Your task to perform on an android device: Open settings on Google Maps Image 0: 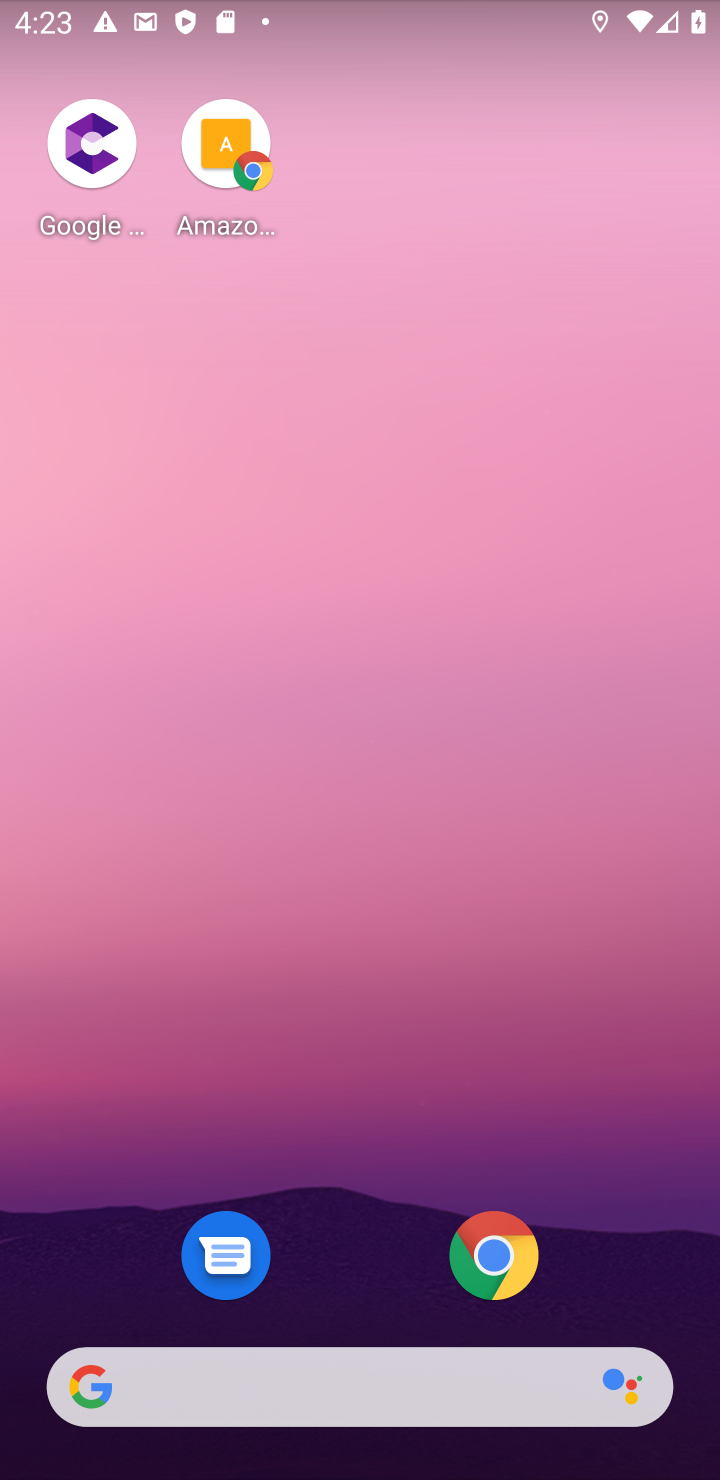
Step 0: drag from (329, 1364) to (454, 102)
Your task to perform on an android device: Open settings on Google Maps Image 1: 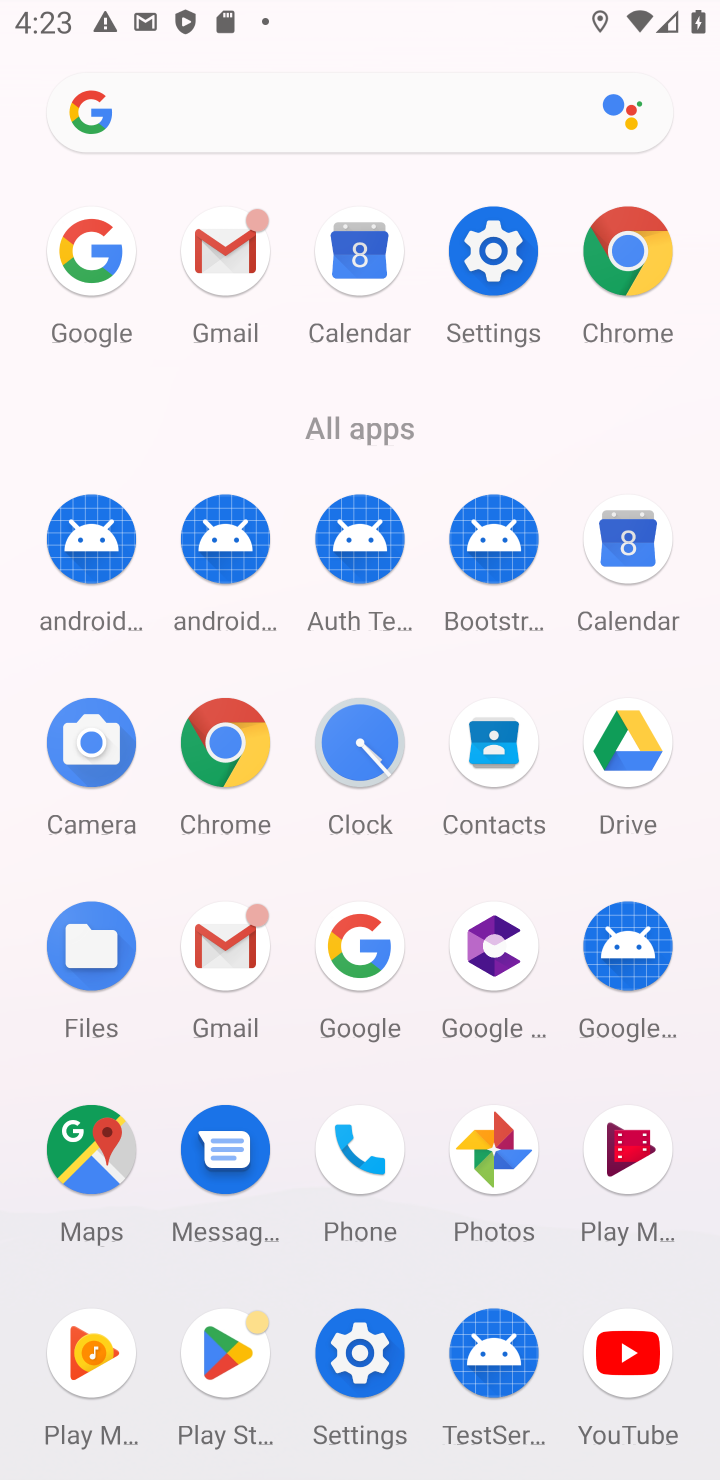
Step 1: click (97, 1151)
Your task to perform on an android device: Open settings on Google Maps Image 2: 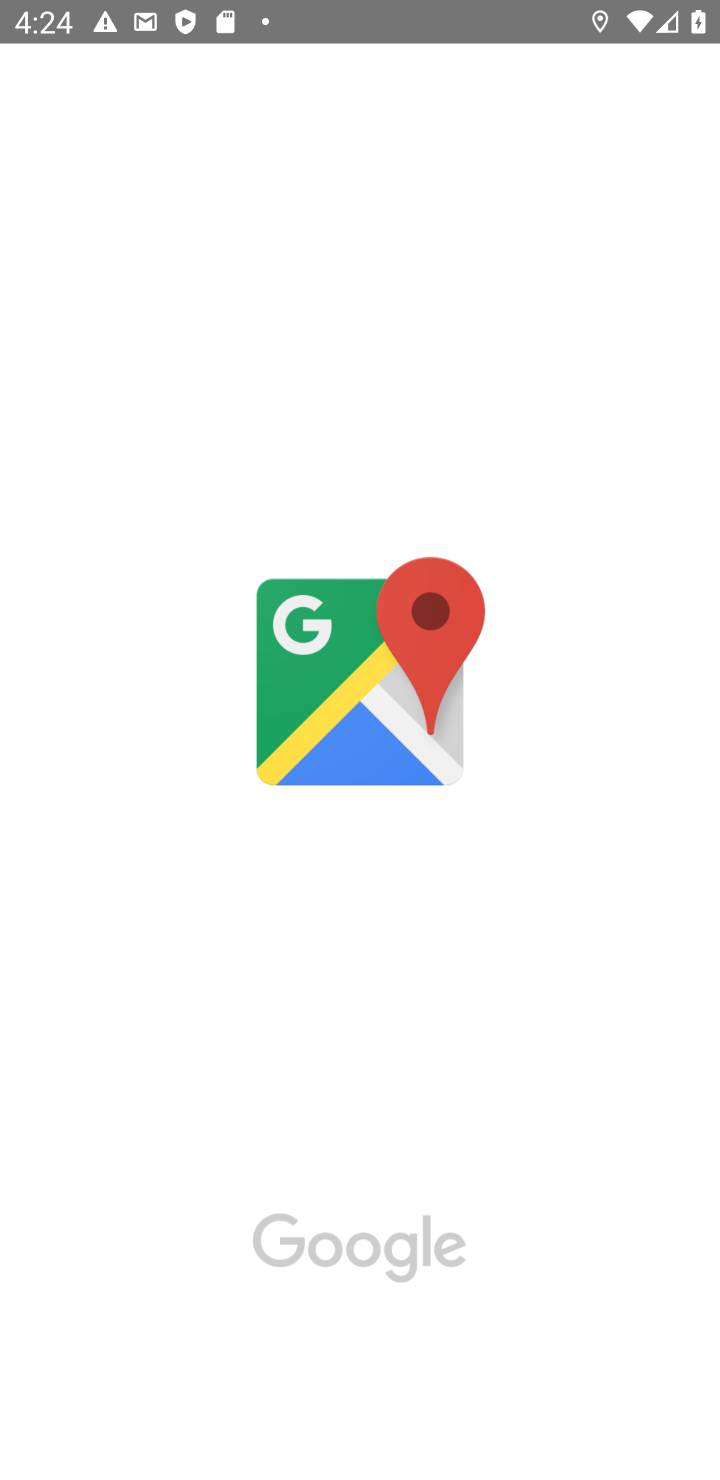
Step 2: click (568, 376)
Your task to perform on an android device: Open settings on Google Maps Image 3: 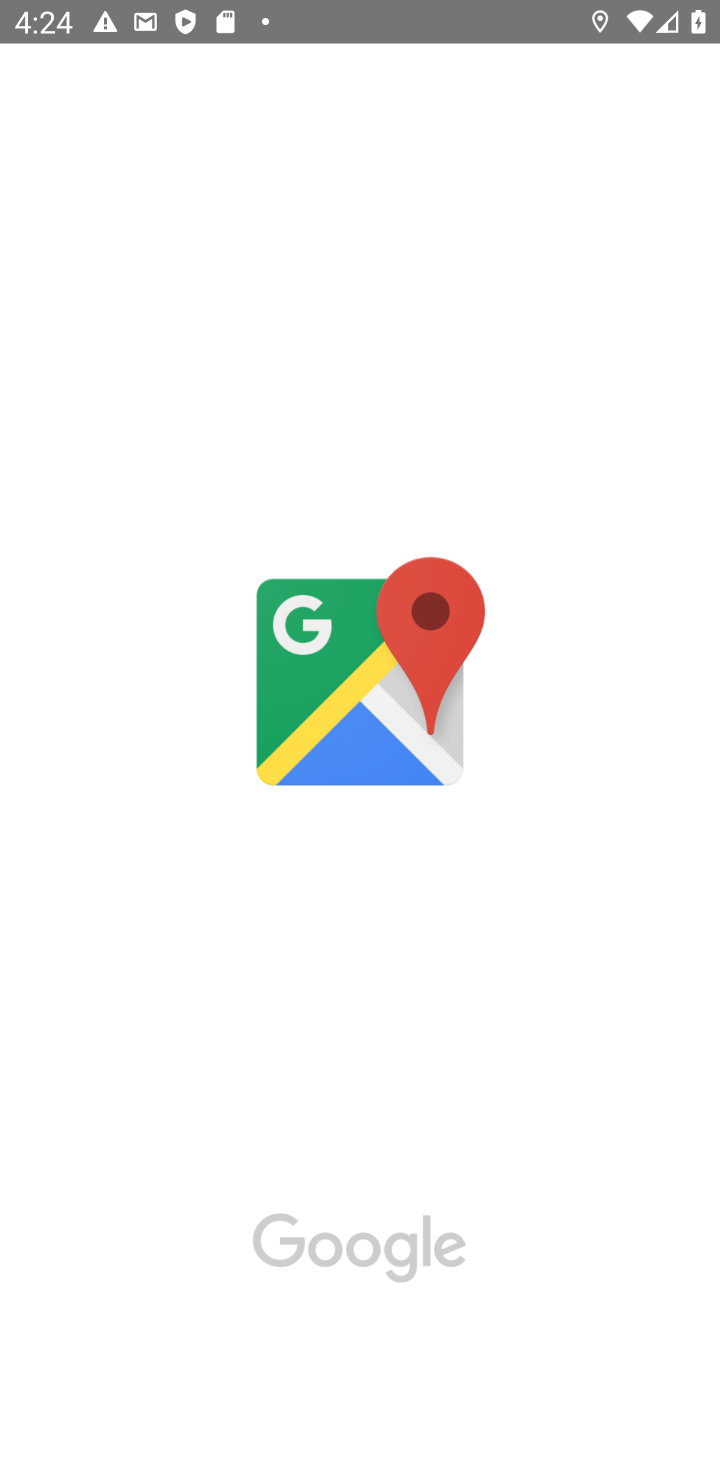
Step 3: task complete